Your task to perform on an android device: empty trash in the gmail app Image 0: 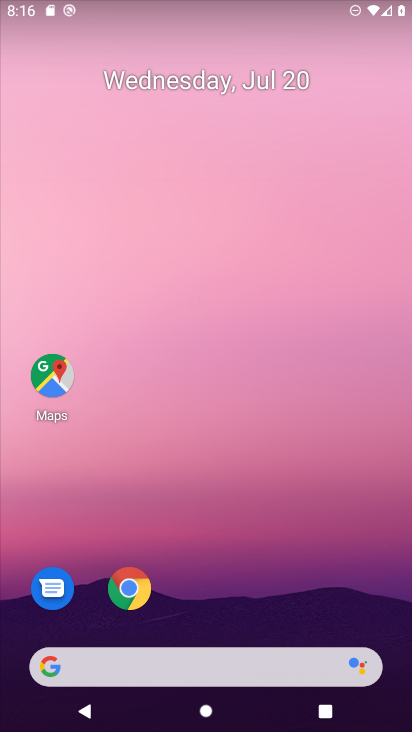
Step 0: drag from (40, 641) to (159, 221)
Your task to perform on an android device: empty trash in the gmail app Image 1: 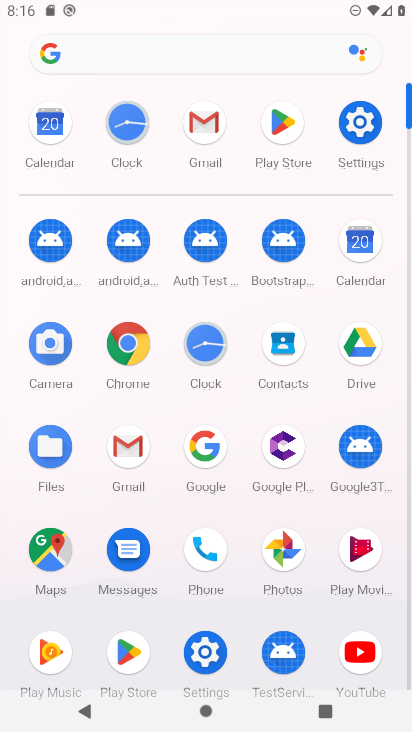
Step 1: click (111, 460)
Your task to perform on an android device: empty trash in the gmail app Image 2: 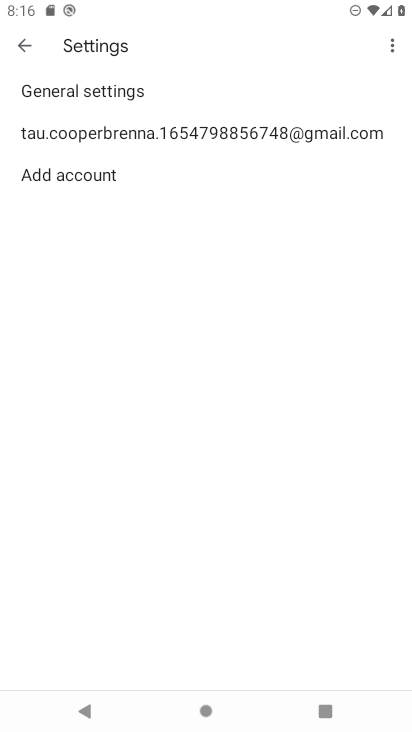
Step 2: click (27, 49)
Your task to perform on an android device: empty trash in the gmail app Image 3: 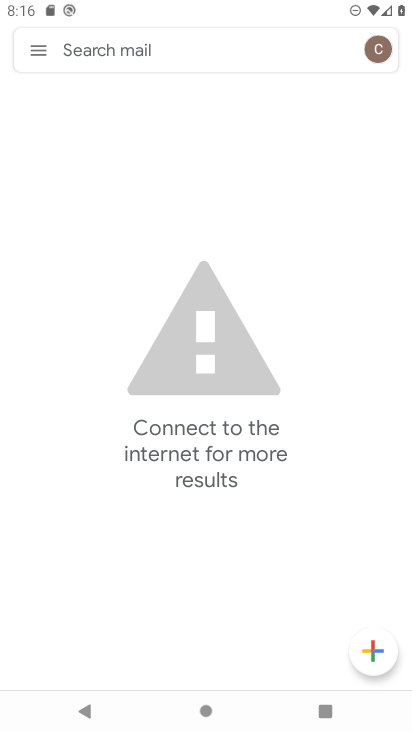
Step 3: click (49, 43)
Your task to perform on an android device: empty trash in the gmail app Image 4: 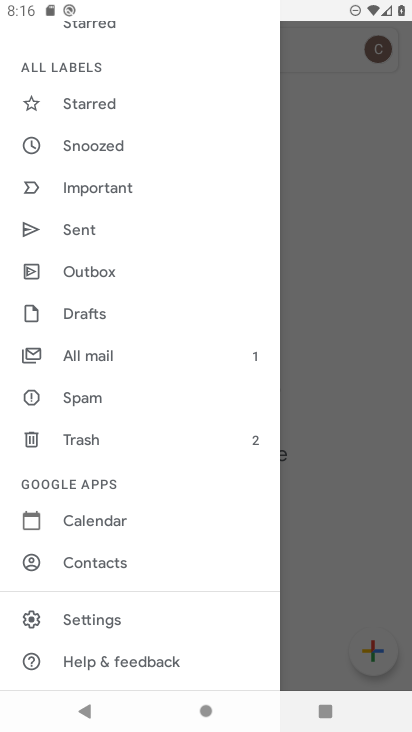
Step 4: click (82, 447)
Your task to perform on an android device: empty trash in the gmail app Image 5: 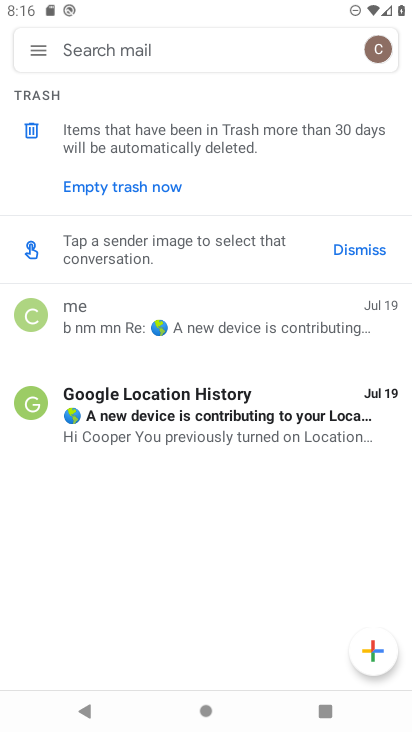
Step 5: click (34, 128)
Your task to perform on an android device: empty trash in the gmail app Image 6: 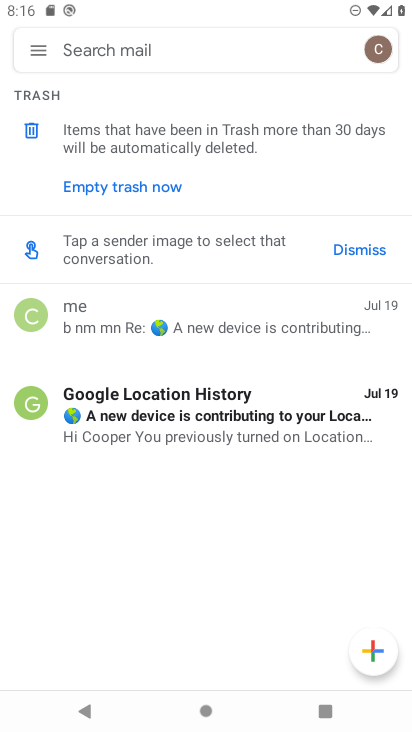
Step 6: click (128, 194)
Your task to perform on an android device: empty trash in the gmail app Image 7: 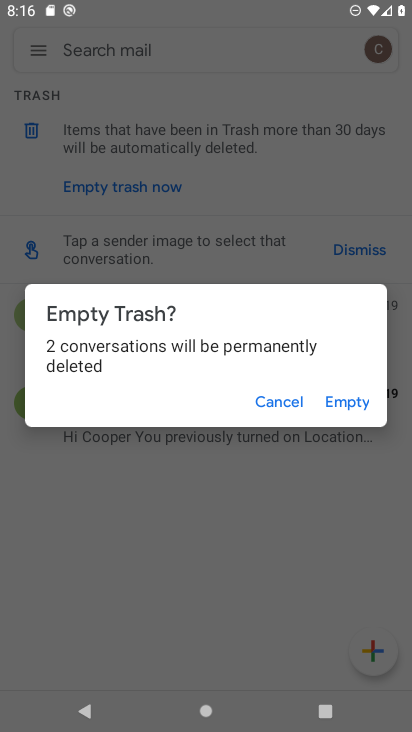
Step 7: click (342, 409)
Your task to perform on an android device: empty trash in the gmail app Image 8: 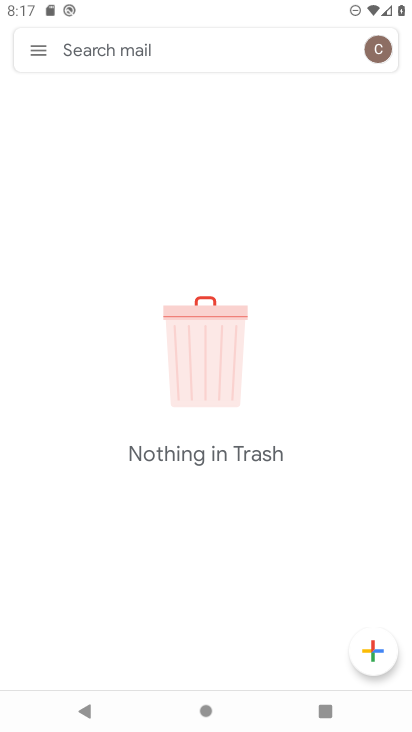
Step 8: task complete